Your task to perform on an android device: turn on javascript in the chrome app Image 0: 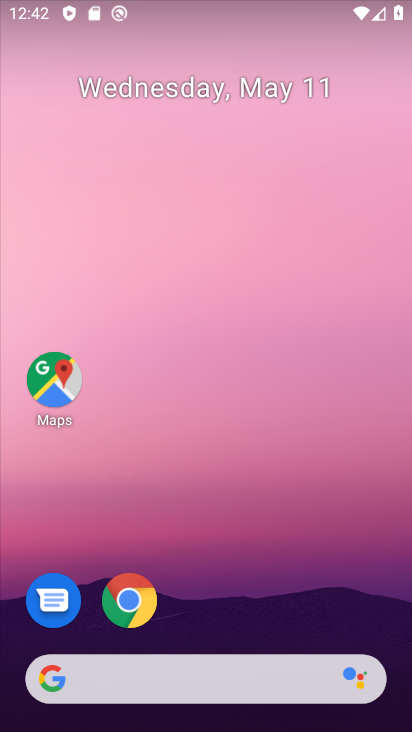
Step 0: drag from (240, 518) to (216, 273)
Your task to perform on an android device: turn on javascript in the chrome app Image 1: 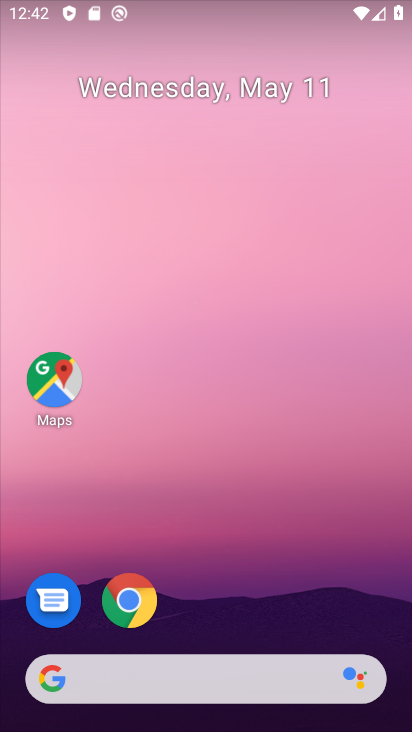
Step 1: drag from (261, 586) to (283, 322)
Your task to perform on an android device: turn on javascript in the chrome app Image 2: 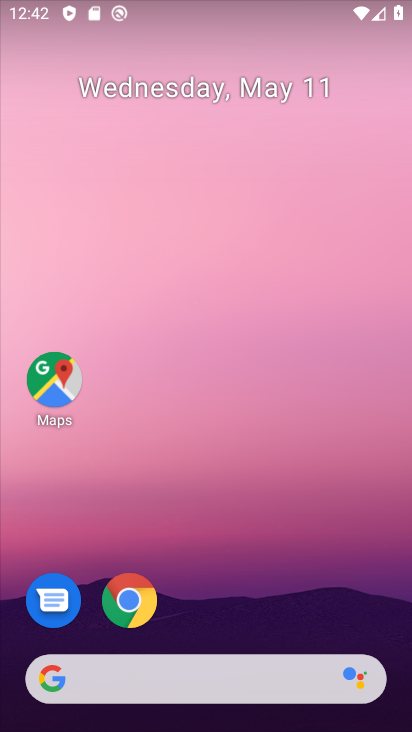
Step 2: drag from (265, 633) to (241, 227)
Your task to perform on an android device: turn on javascript in the chrome app Image 3: 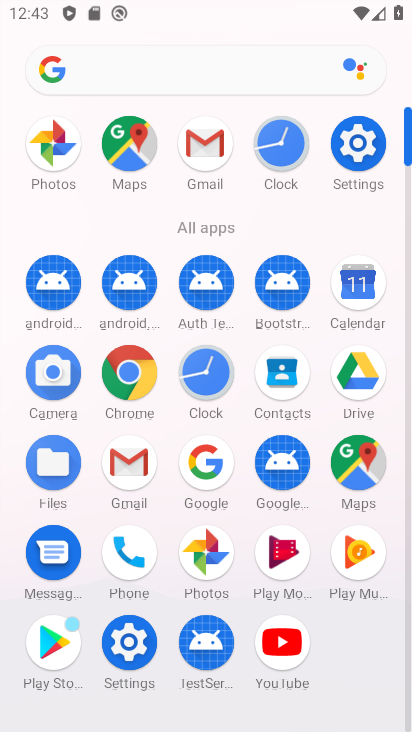
Step 3: click (125, 376)
Your task to perform on an android device: turn on javascript in the chrome app Image 4: 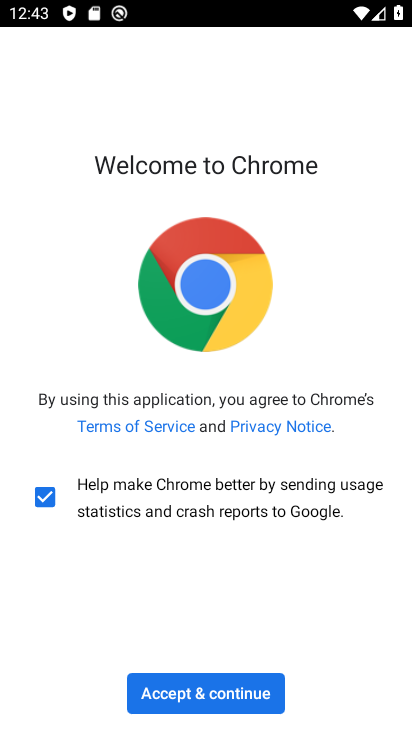
Step 4: click (171, 681)
Your task to perform on an android device: turn on javascript in the chrome app Image 5: 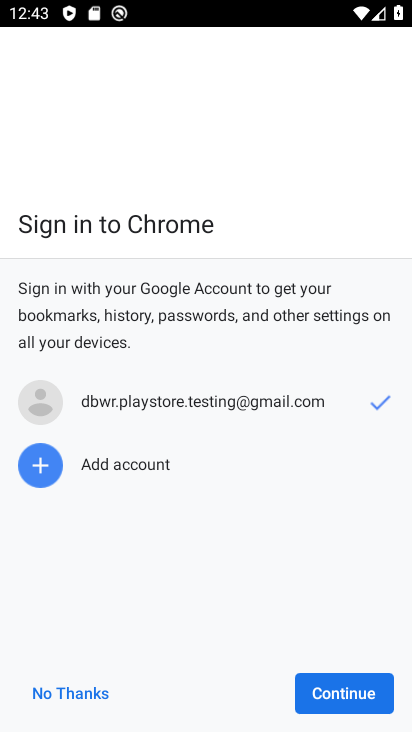
Step 5: click (323, 693)
Your task to perform on an android device: turn on javascript in the chrome app Image 6: 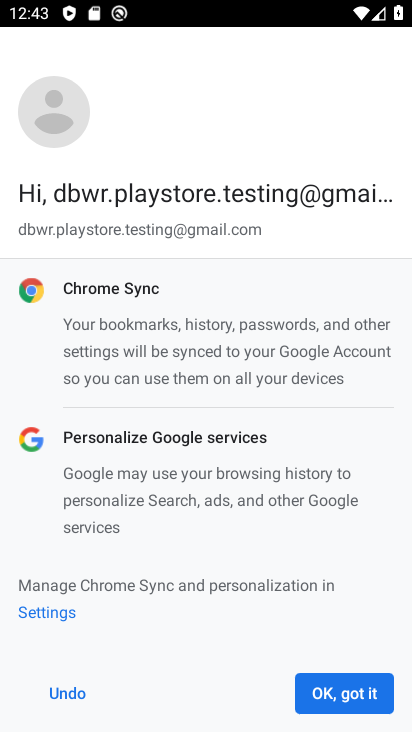
Step 6: click (356, 681)
Your task to perform on an android device: turn on javascript in the chrome app Image 7: 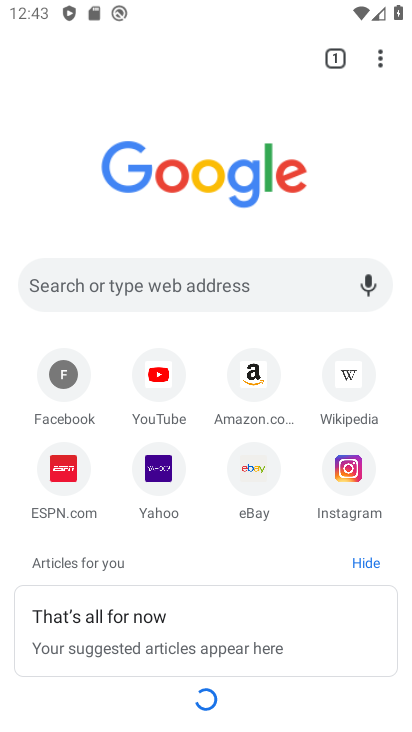
Step 7: click (366, 57)
Your task to perform on an android device: turn on javascript in the chrome app Image 8: 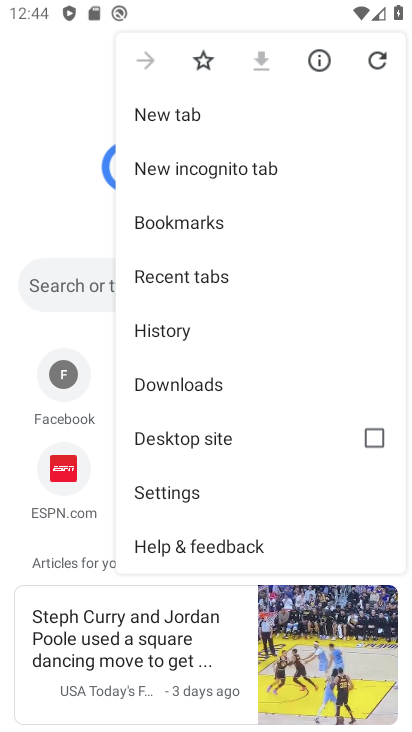
Step 8: click (188, 505)
Your task to perform on an android device: turn on javascript in the chrome app Image 9: 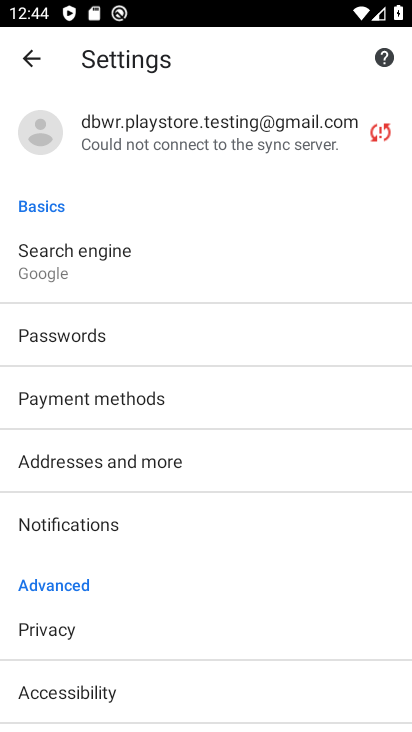
Step 9: drag from (160, 658) to (225, 242)
Your task to perform on an android device: turn on javascript in the chrome app Image 10: 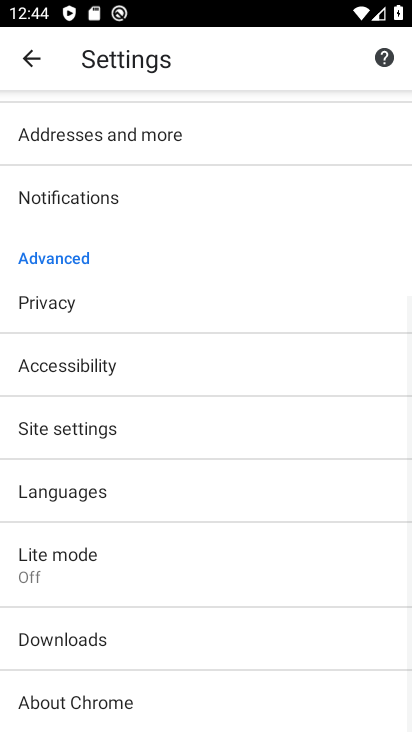
Step 10: click (114, 431)
Your task to perform on an android device: turn on javascript in the chrome app Image 11: 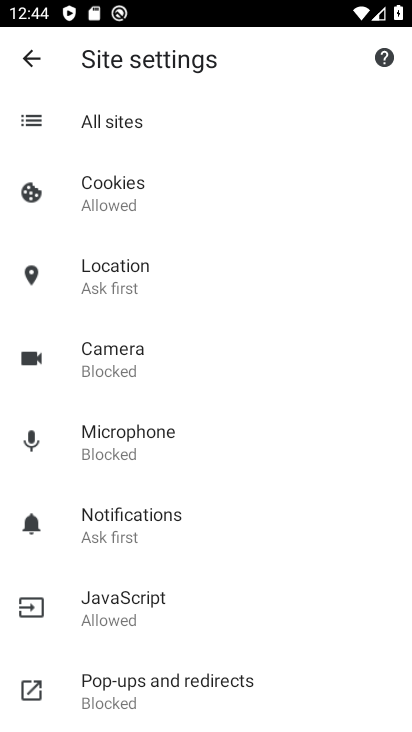
Step 11: click (141, 603)
Your task to perform on an android device: turn on javascript in the chrome app Image 12: 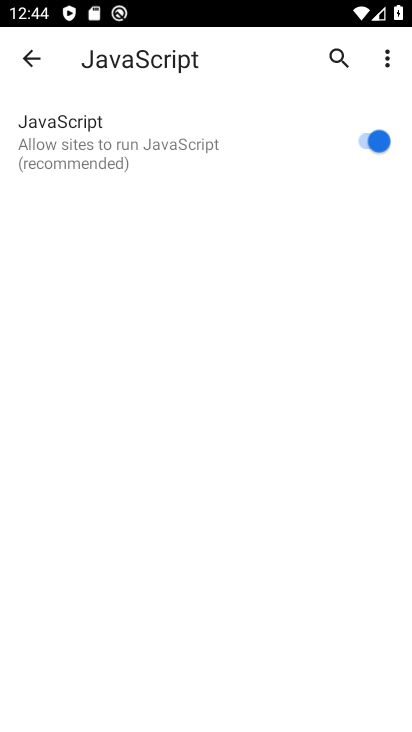
Step 12: task complete